Your task to perform on an android device: check out phone information Image 0: 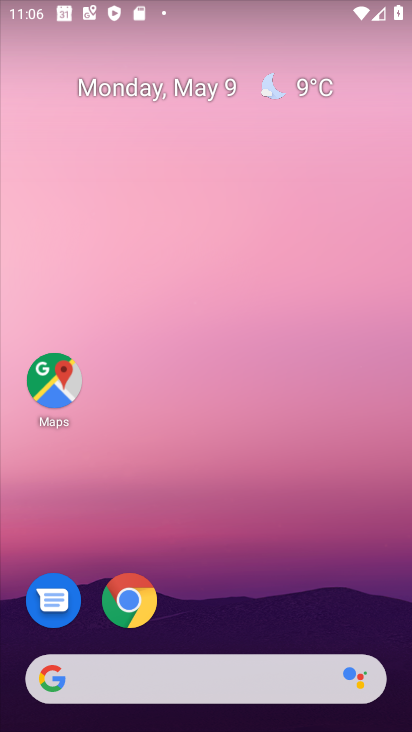
Step 0: press home button
Your task to perform on an android device: check out phone information Image 1: 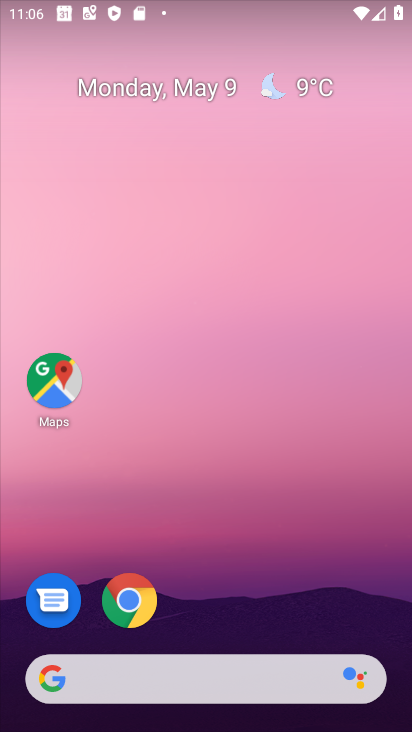
Step 1: drag from (326, 620) to (315, 190)
Your task to perform on an android device: check out phone information Image 2: 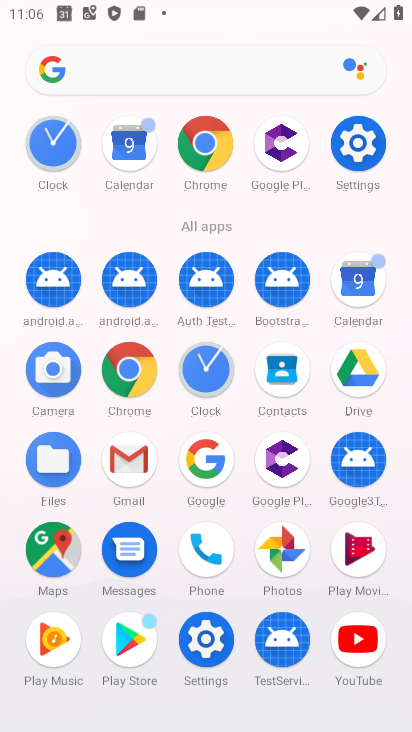
Step 2: click (219, 656)
Your task to perform on an android device: check out phone information Image 3: 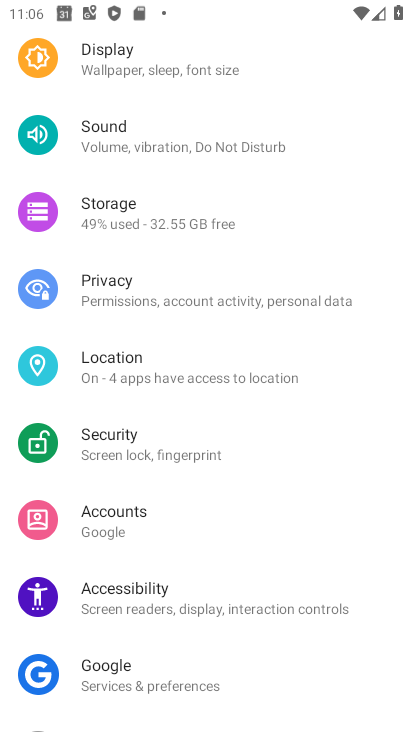
Step 3: task complete